Your task to perform on an android device: turn on translation in the chrome app Image 0: 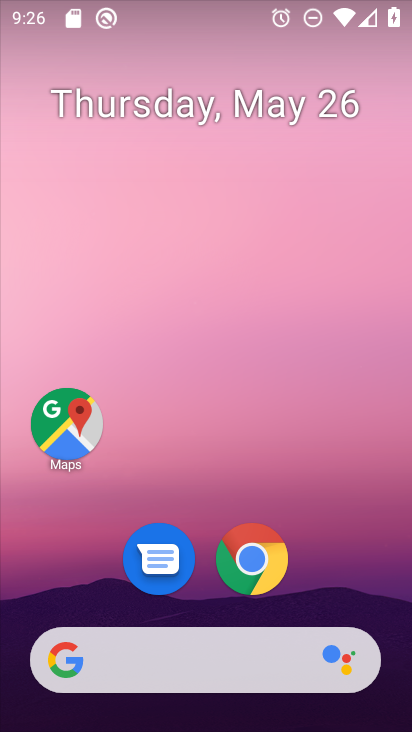
Step 0: click (260, 567)
Your task to perform on an android device: turn on translation in the chrome app Image 1: 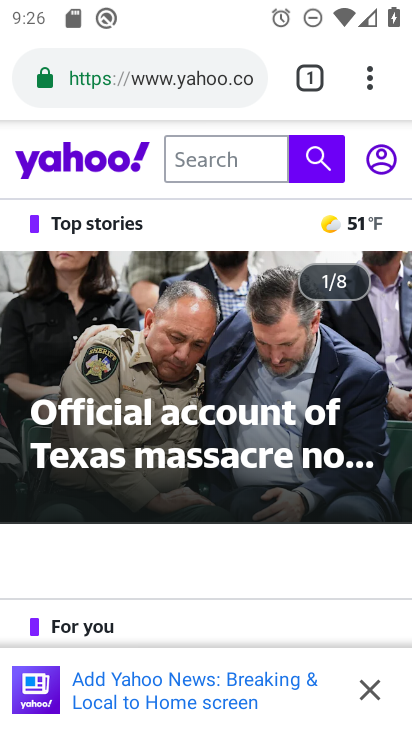
Step 1: click (358, 85)
Your task to perform on an android device: turn on translation in the chrome app Image 2: 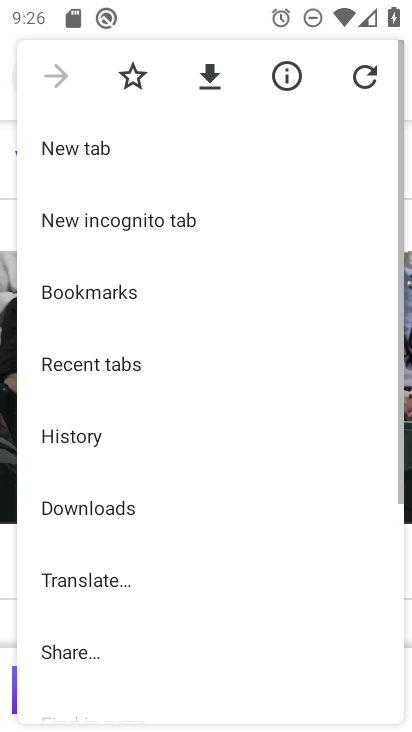
Step 2: drag from (202, 678) to (239, 179)
Your task to perform on an android device: turn on translation in the chrome app Image 3: 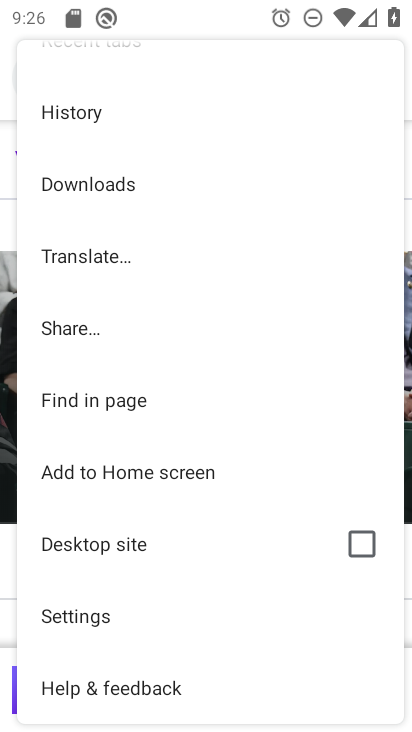
Step 3: click (103, 621)
Your task to perform on an android device: turn on translation in the chrome app Image 4: 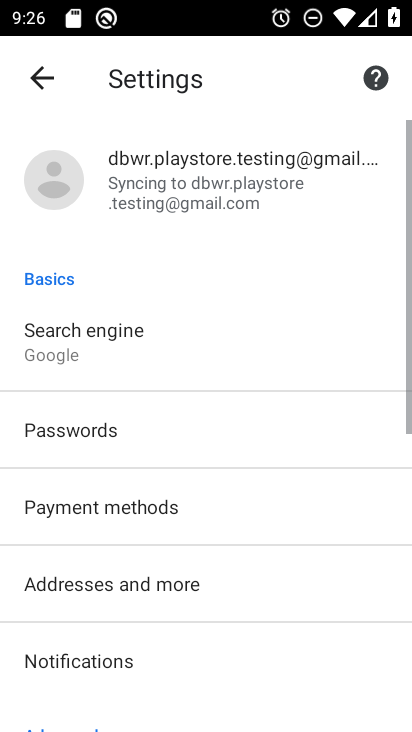
Step 4: drag from (197, 643) to (224, 117)
Your task to perform on an android device: turn on translation in the chrome app Image 5: 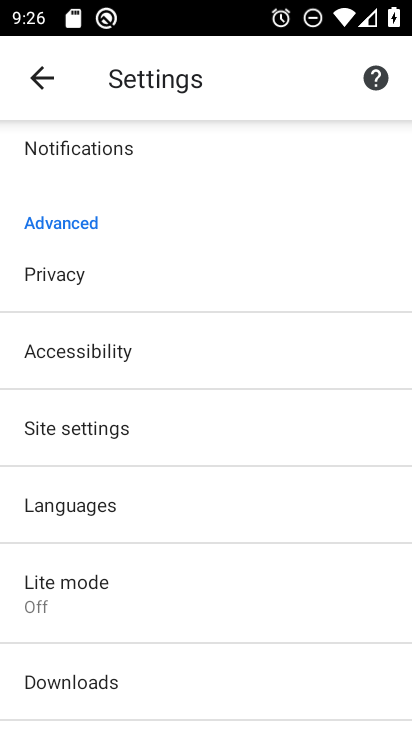
Step 5: click (65, 503)
Your task to perform on an android device: turn on translation in the chrome app Image 6: 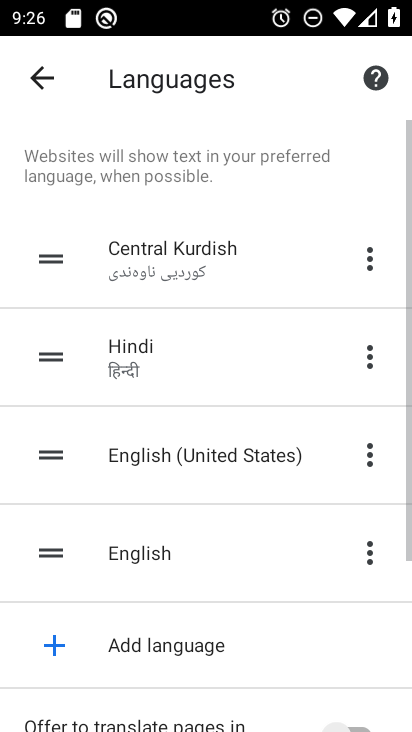
Step 6: drag from (249, 685) to (269, 172)
Your task to perform on an android device: turn on translation in the chrome app Image 7: 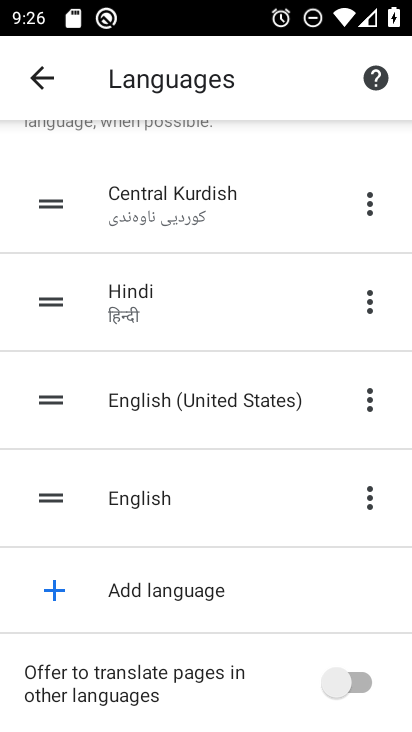
Step 7: click (352, 679)
Your task to perform on an android device: turn on translation in the chrome app Image 8: 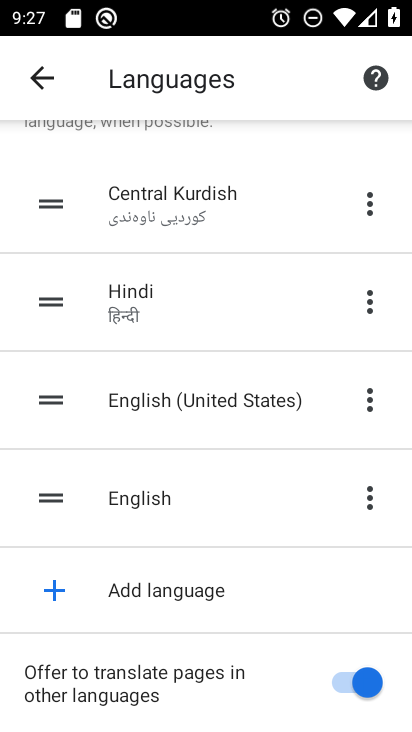
Step 8: task complete